Your task to perform on an android device: Open Amazon Image 0: 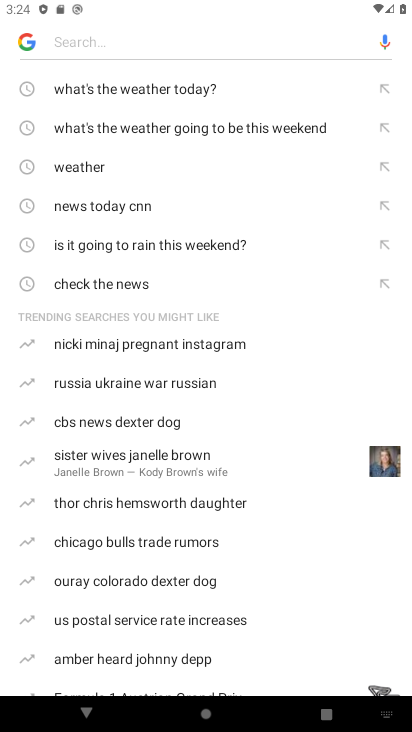
Step 0: press back button
Your task to perform on an android device: Open Amazon Image 1: 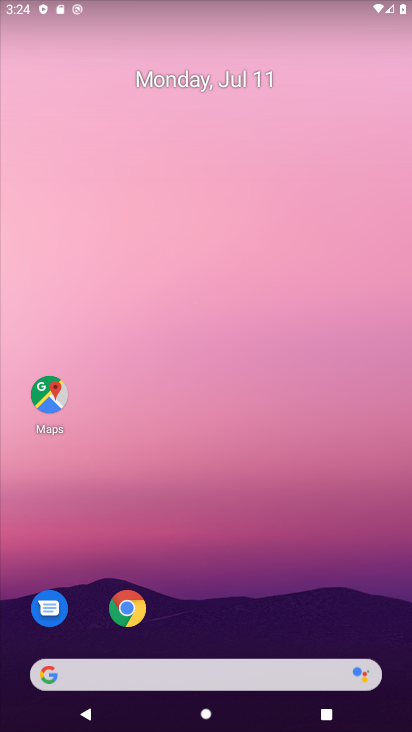
Step 1: click (142, 616)
Your task to perform on an android device: Open Amazon Image 2: 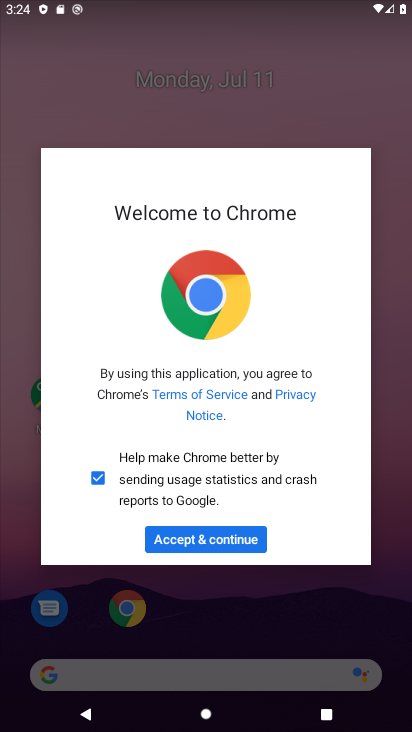
Step 2: click (204, 549)
Your task to perform on an android device: Open Amazon Image 3: 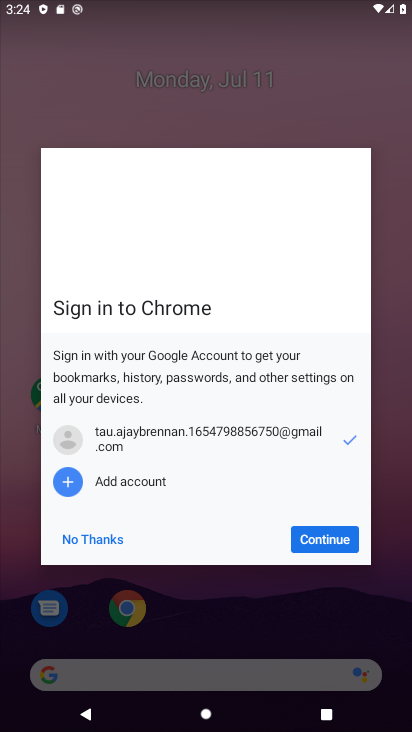
Step 3: click (351, 539)
Your task to perform on an android device: Open Amazon Image 4: 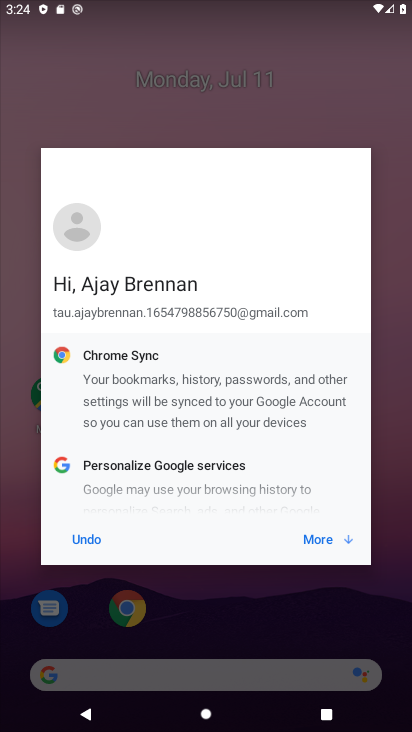
Step 4: click (318, 545)
Your task to perform on an android device: Open Amazon Image 5: 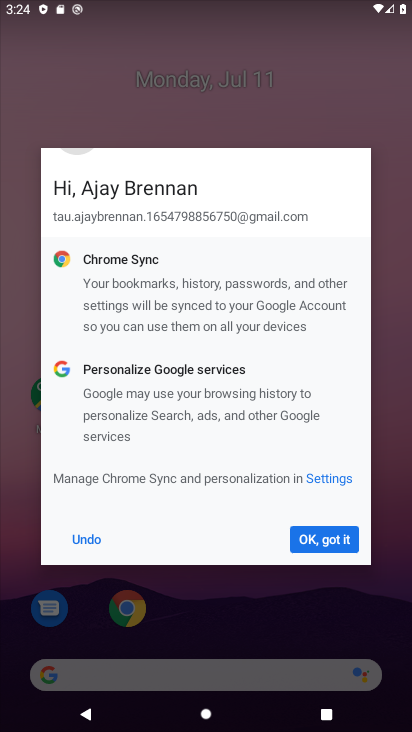
Step 5: click (318, 545)
Your task to perform on an android device: Open Amazon Image 6: 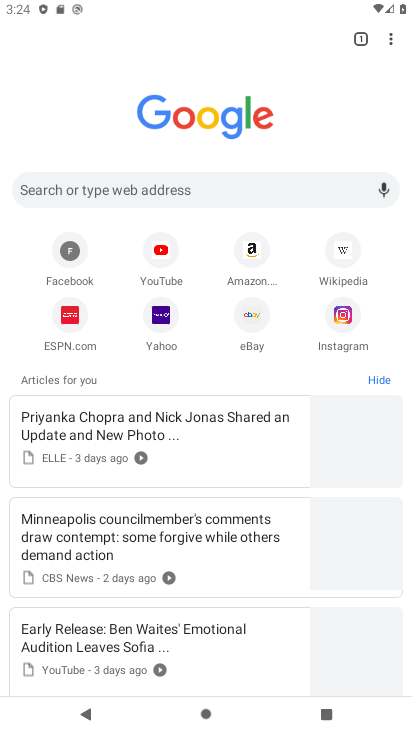
Step 6: click (254, 251)
Your task to perform on an android device: Open Amazon Image 7: 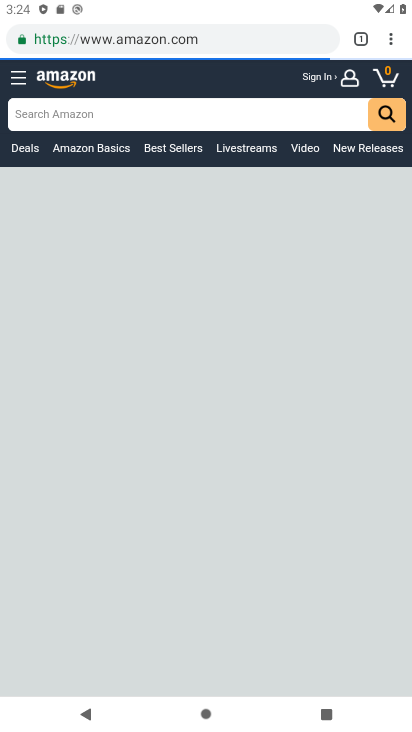
Step 7: task complete